Your task to perform on an android device: turn off notifications settings in the gmail app Image 0: 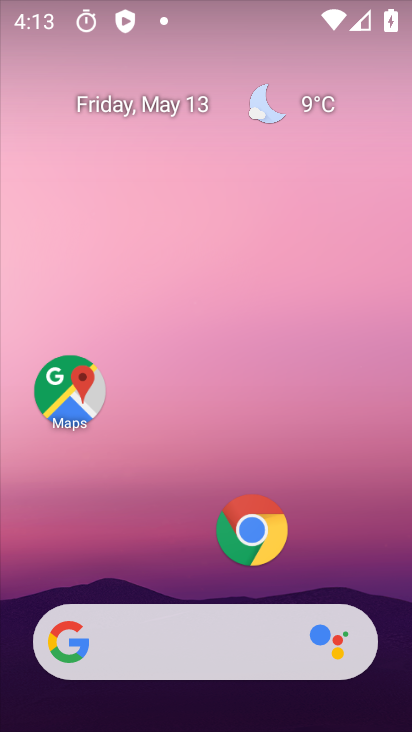
Step 0: drag from (185, 579) to (261, 47)
Your task to perform on an android device: turn off notifications settings in the gmail app Image 1: 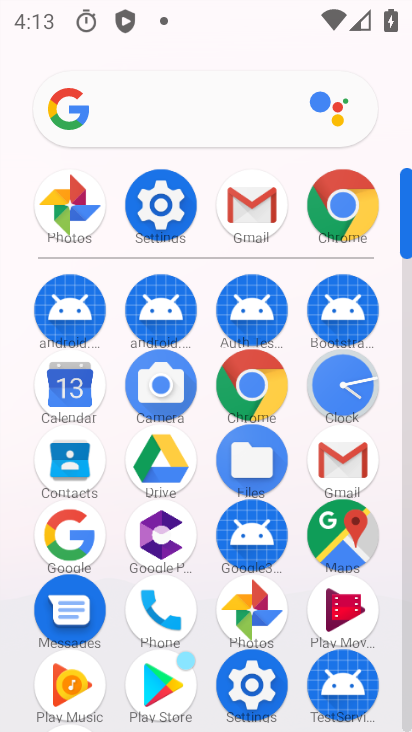
Step 1: click (345, 447)
Your task to perform on an android device: turn off notifications settings in the gmail app Image 2: 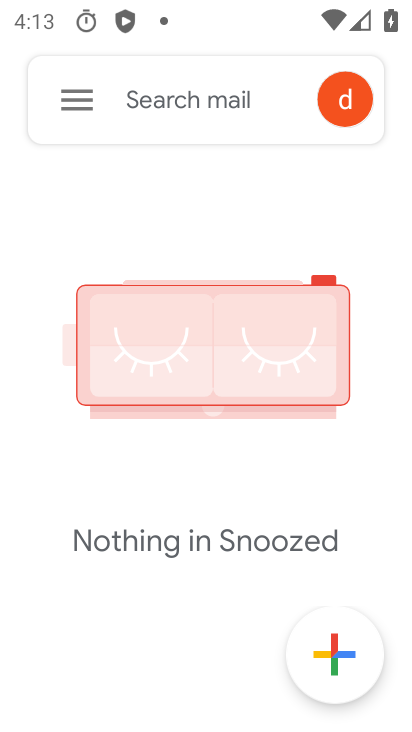
Step 2: click (68, 102)
Your task to perform on an android device: turn off notifications settings in the gmail app Image 3: 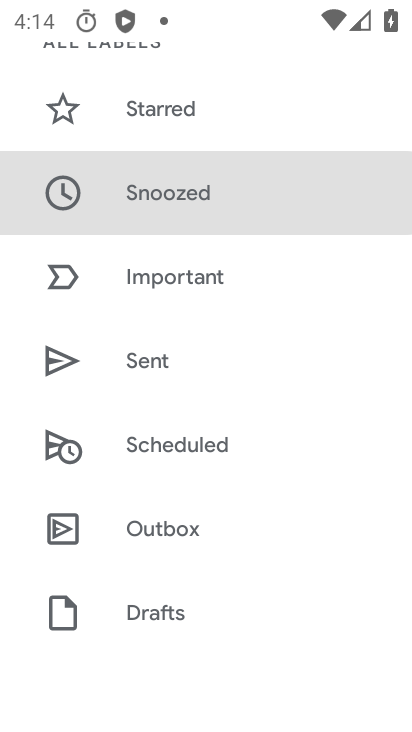
Step 3: drag from (162, 596) to (168, 46)
Your task to perform on an android device: turn off notifications settings in the gmail app Image 4: 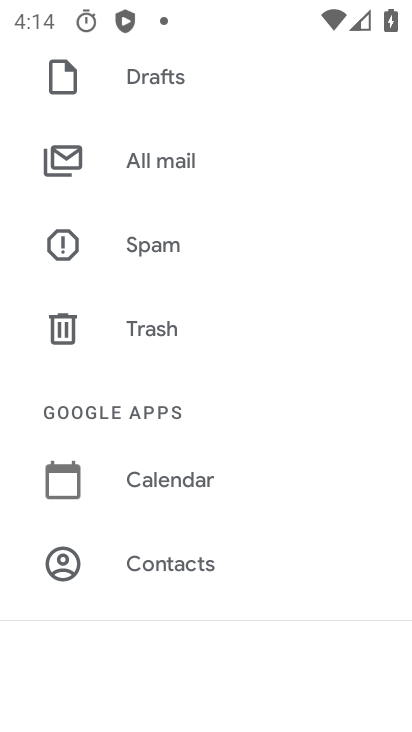
Step 4: drag from (137, 544) to (131, 67)
Your task to perform on an android device: turn off notifications settings in the gmail app Image 5: 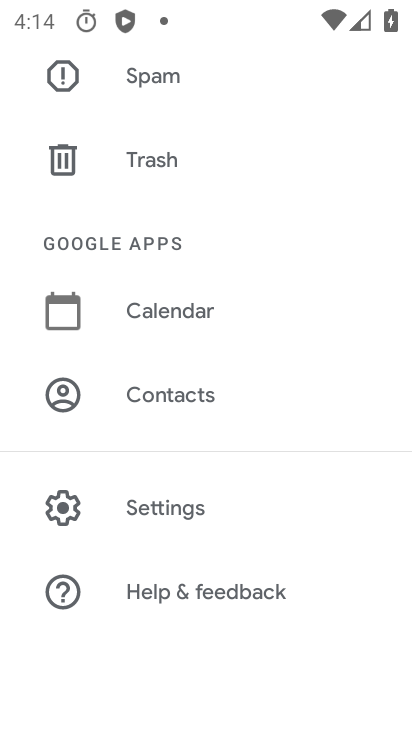
Step 5: click (106, 537)
Your task to perform on an android device: turn off notifications settings in the gmail app Image 6: 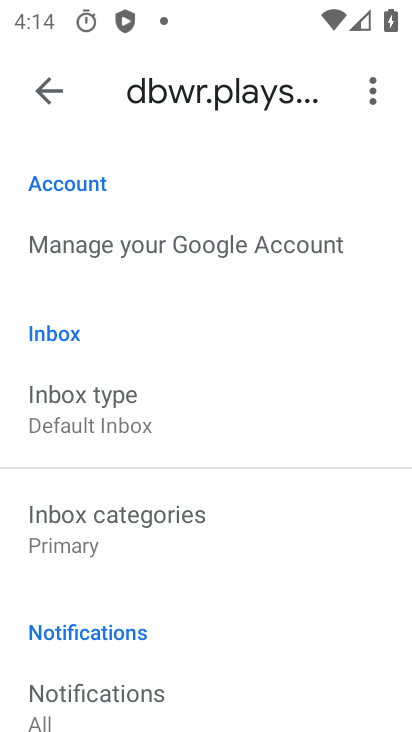
Step 6: drag from (191, 590) to (190, 371)
Your task to perform on an android device: turn off notifications settings in the gmail app Image 7: 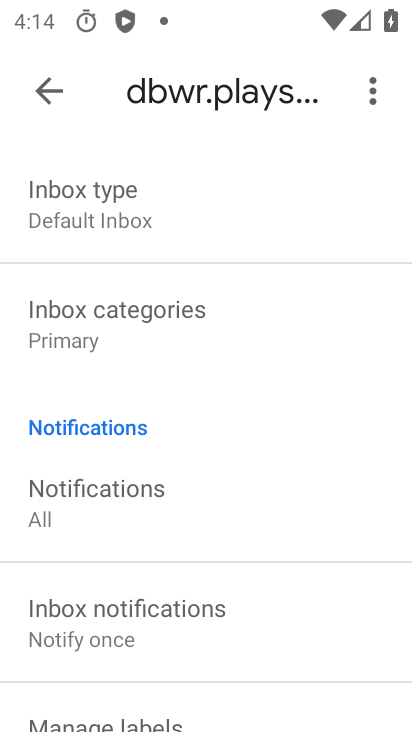
Step 7: click (56, 103)
Your task to perform on an android device: turn off notifications settings in the gmail app Image 8: 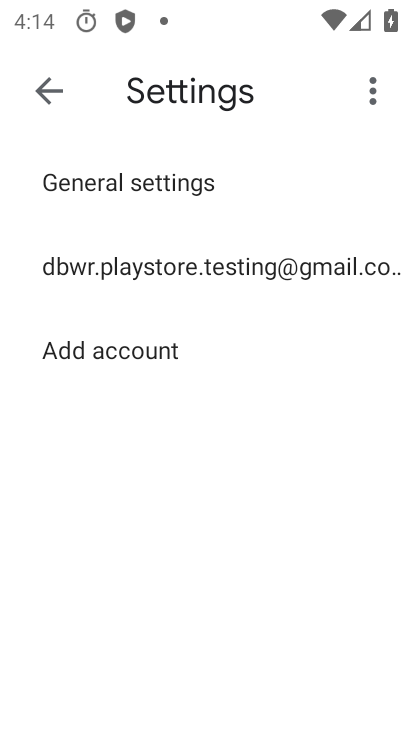
Step 8: click (230, 178)
Your task to perform on an android device: turn off notifications settings in the gmail app Image 9: 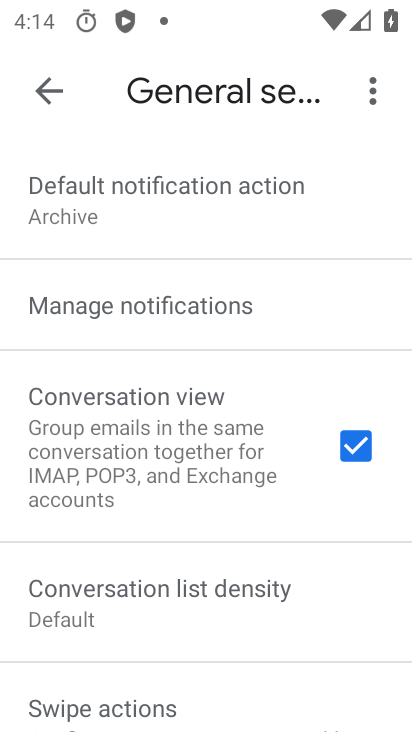
Step 9: click (188, 310)
Your task to perform on an android device: turn off notifications settings in the gmail app Image 10: 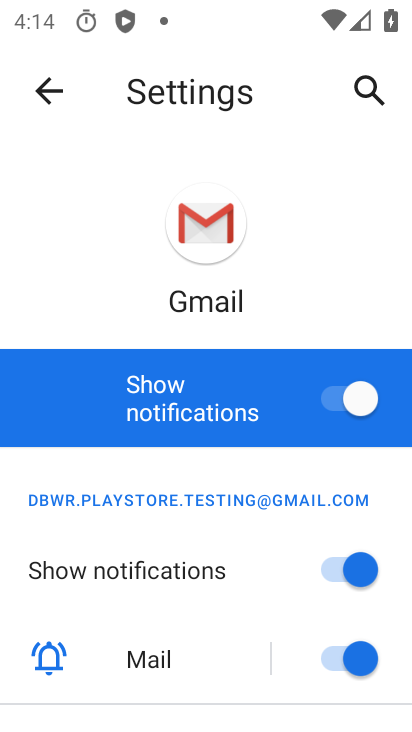
Step 10: click (327, 402)
Your task to perform on an android device: turn off notifications settings in the gmail app Image 11: 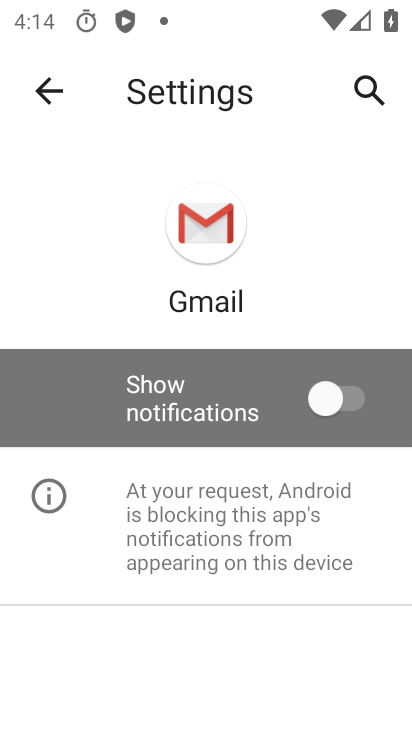
Step 11: task complete